Your task to perform on an android device: Find coffee shops on Maps Image 0: 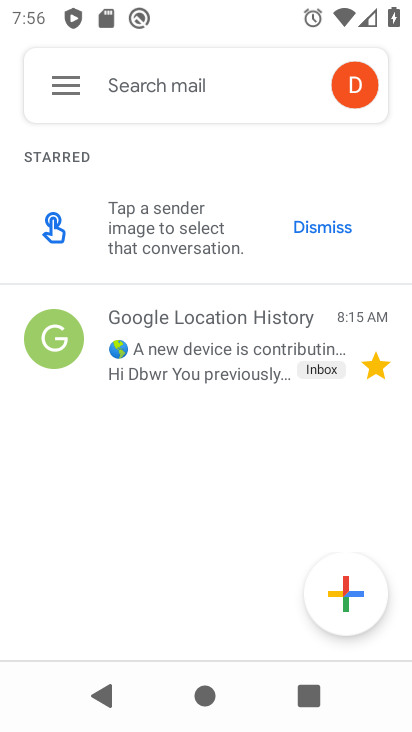
Step 0: press back button
Your task to perform on an android device: Find coffee shops on Maps Image 1: 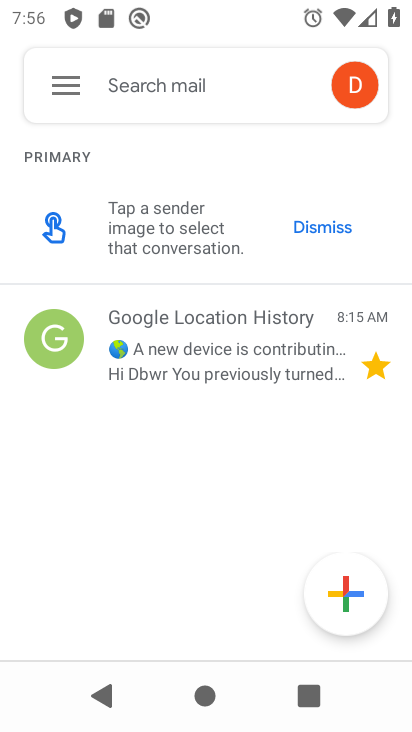
Step 1: press home button
Your task to perform on an android device: Find coffee shops on Maps Image 2: 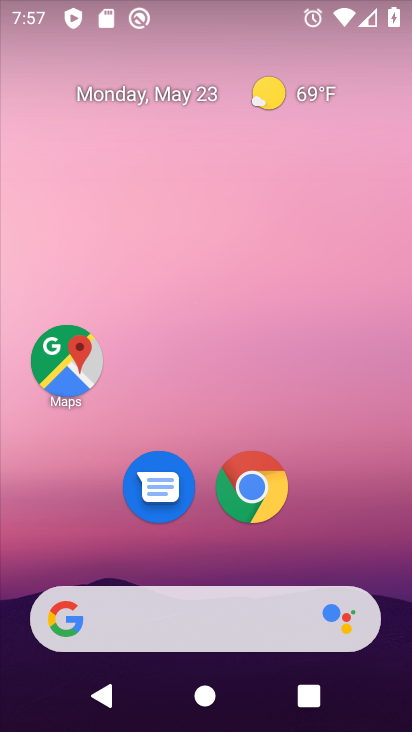
Step 2: click (64, 363)
Your task to perform on an android device: Find coffee shops on Maps Image 3: 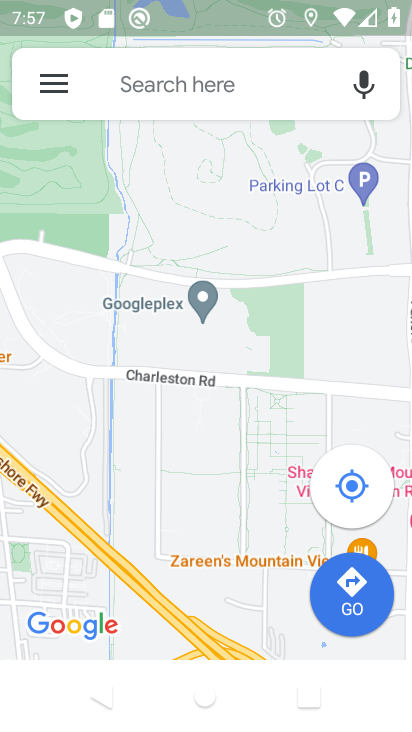
Step 3: click (246, 74)
Your task to perform on an android device: Find coffee shops on Maps Image 4: 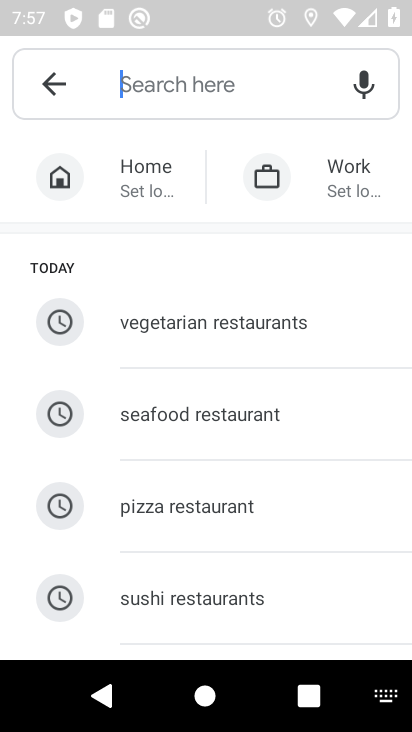
Step 4: type "coffee shop"
Your task to perform on an android device: Find coffee shops on Maps Image 5: 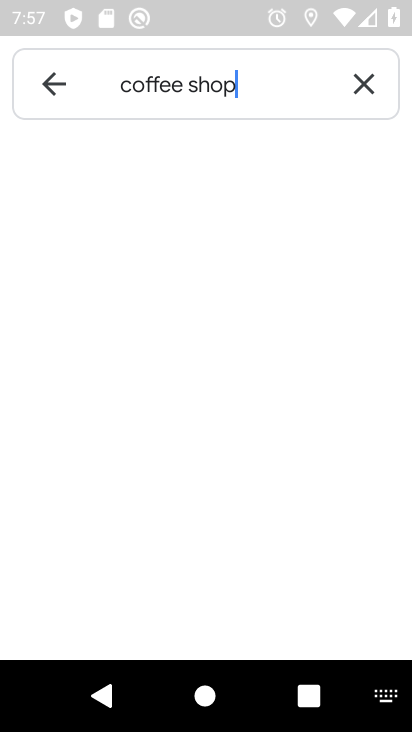
Step 5: type ""
Your task to perform on an android device: Find coffee shops on Maps Image 6: 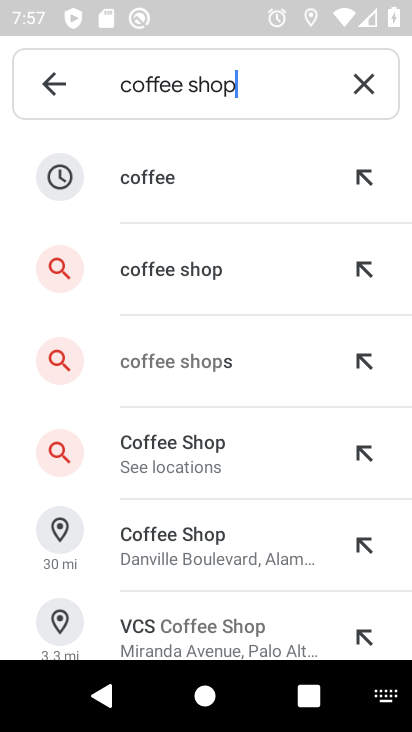
Step 6: click (196, 278)
Your task to perform on an android device: Find coffee shops on Maps Image 7: 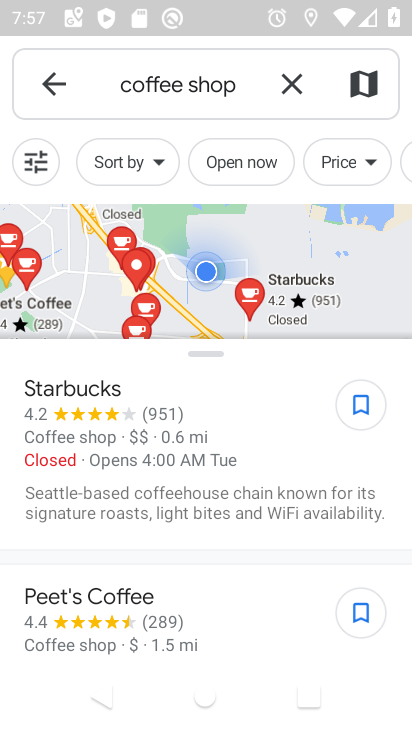
Step 7: task complete